Your task to perform on an android device: turn off notifications settings in the gmail app Image 0: 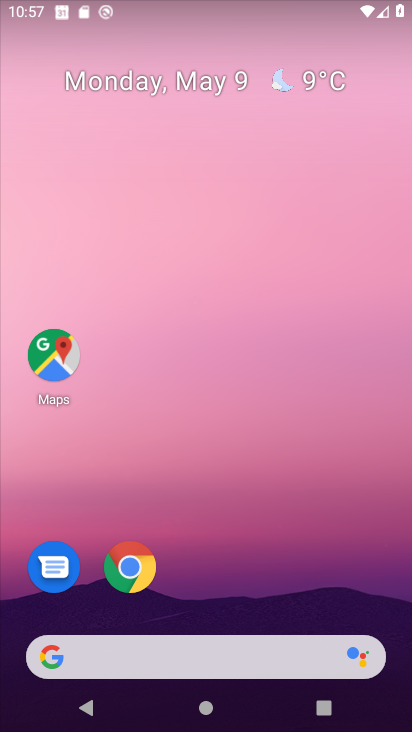
Step 0: drag from (207, 614) to (207, 26)
Your task to perform on an android device: turn off notifications settings in the gmail app Image 1: 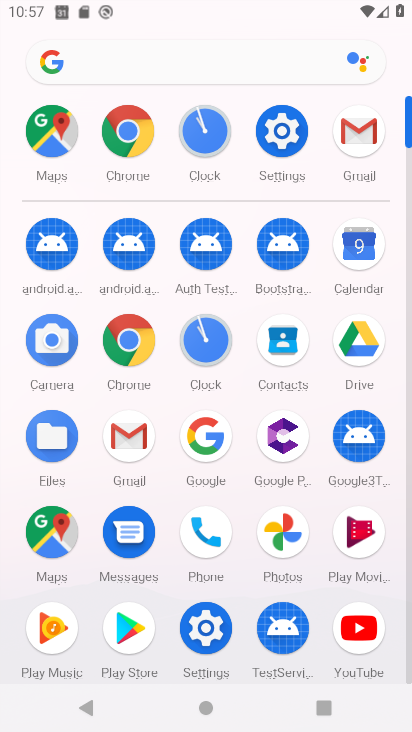
Step 1: click (360, 124)
Your task to perform on an android device: turn off notifications settings in the gmail app Image 2: 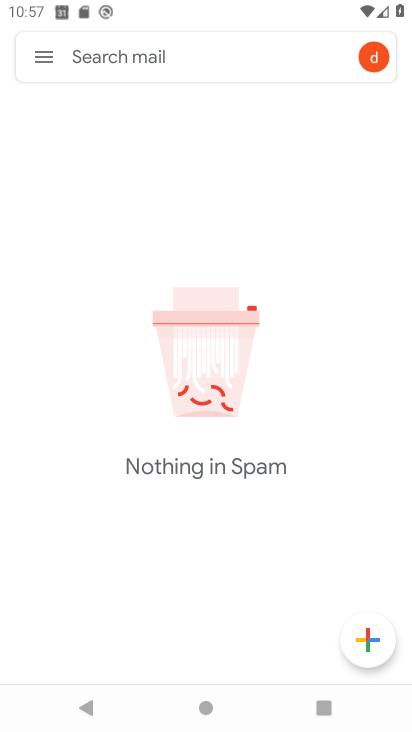
Step 2: click (35, 53)
Your task to perform on an android device: turn off notifications settings in the gmail app Image 3: 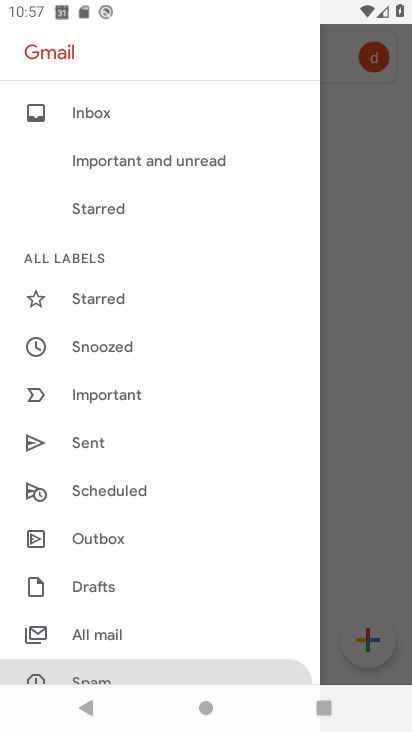
Step 3: drag from (128, 610) to (163, 102)
Your task to perform on an android device: turn off notifications settings in the gmail app Image 4: 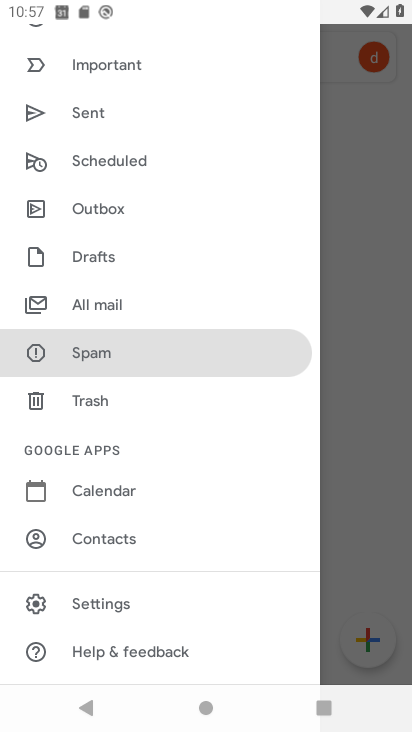
Step 4: click (137, 596)
Your task to perform on an android device: turn off notifications settings in the gmail app Image 5: 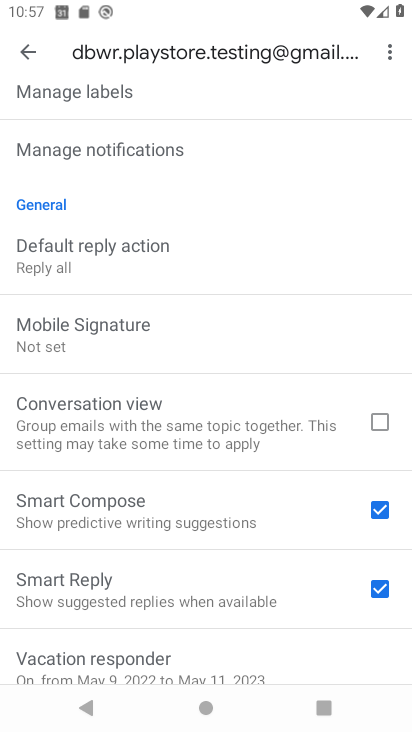
Step 5: click (33, 46)
Your task to perform on an android device: turn off notifications settings in the gmail app Image 6: 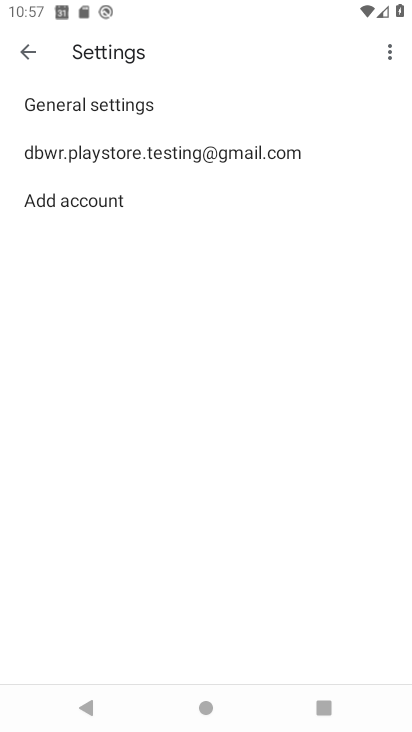
Step 6: click (155, 98)
Your task to perform on an android device: turn off notifications settings in the gmail app Image 7: 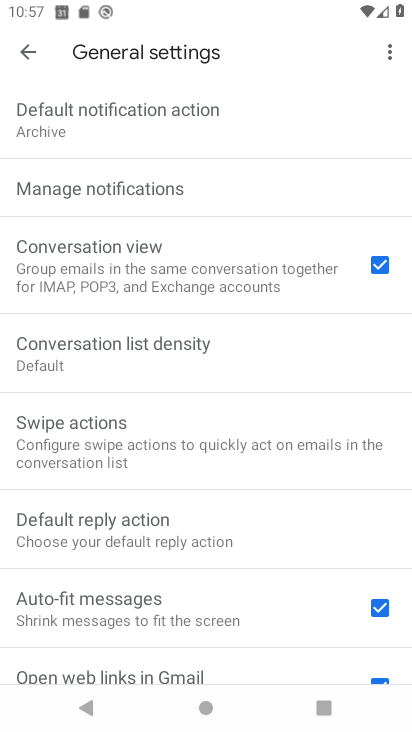
Step 7: click (192, 184)
Your task to perform on an android device: turn off notifications settings in the gmail app Image 8: 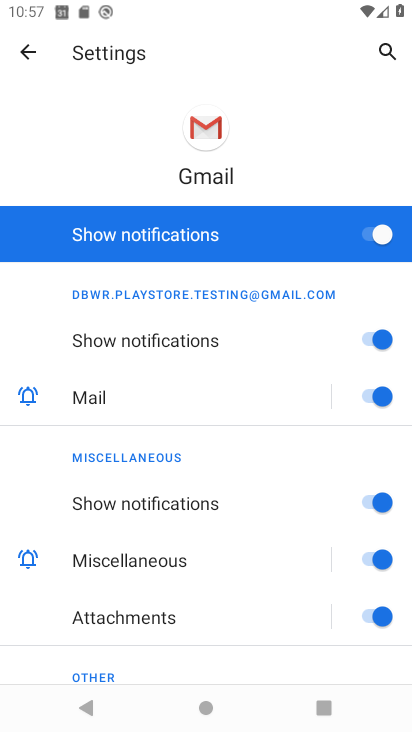
Step 8: click (371, 230)
Your task to perform on an android device: turn off notifications settings in the gmail app Image 9: 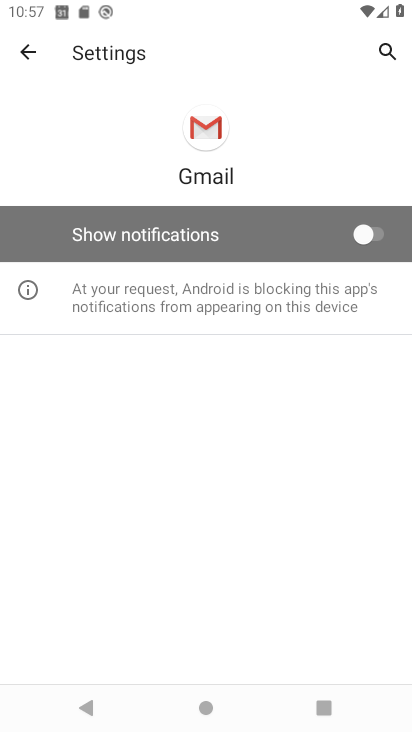
Step 9: task complete